Your task to perform on an android device: add a contact Image 0: 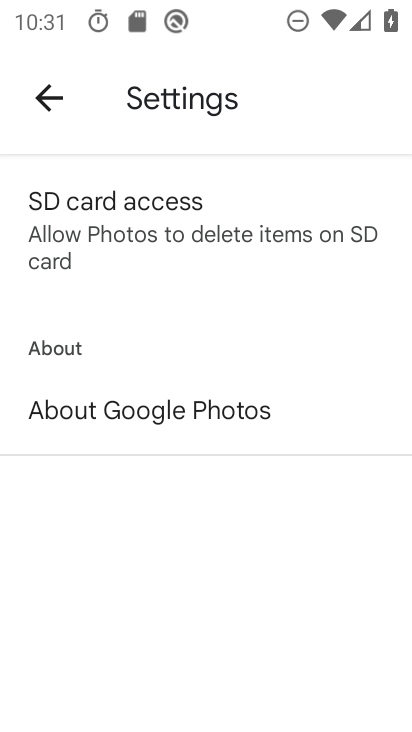
Step 0: press home button
Your task to perform on an android device: add a contact Image 1: 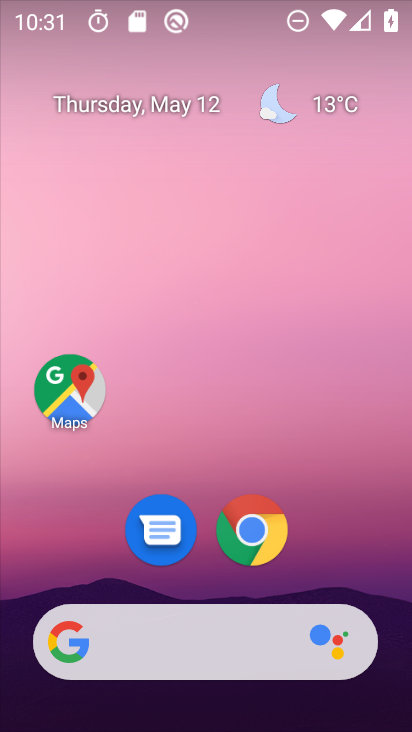
Step 1: drag from (322, 543) to (291, 218)
Your task to perform on an android device: add a contact Image 2: 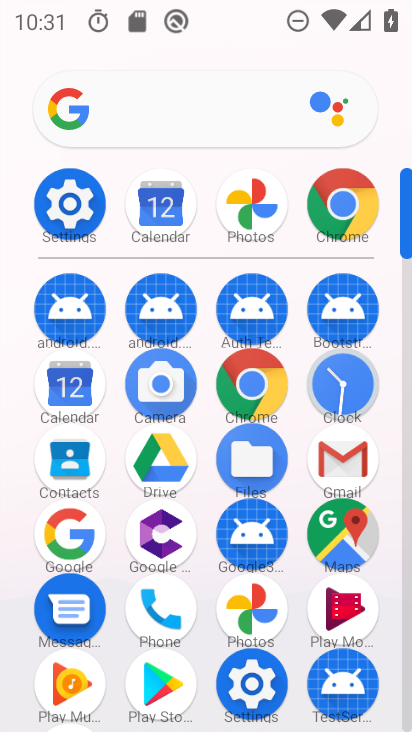
Step 2: click (57, 460)
Your task to perform on an android device: add a contact Image 3: 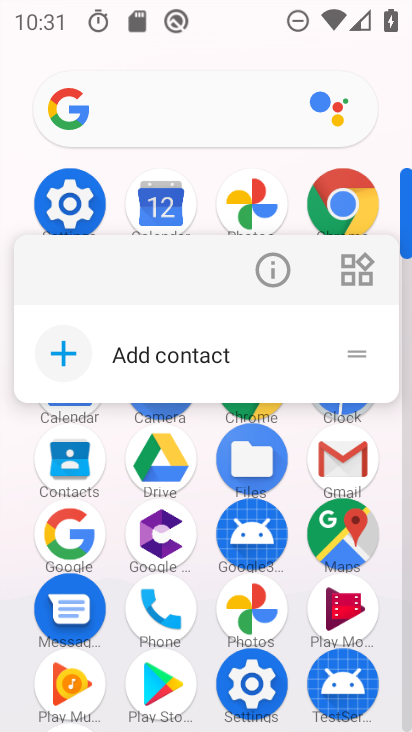
Step 3: click (78, 353)
Your task to perform on an android device: add a contact Image 4: 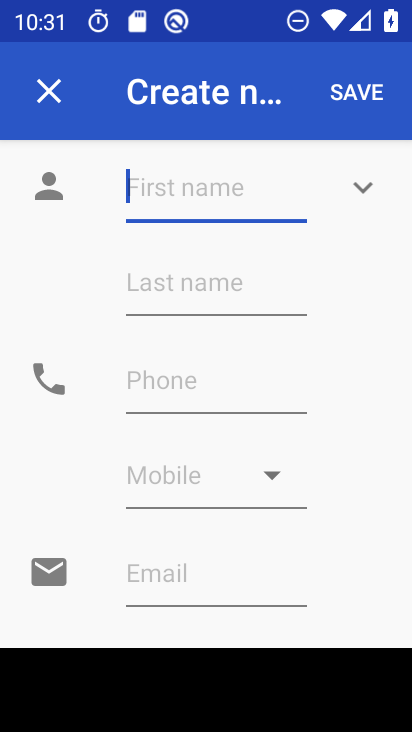
Step 4: type "shsighrth5"
Your task to perform on an android device: add a contact Image 5: 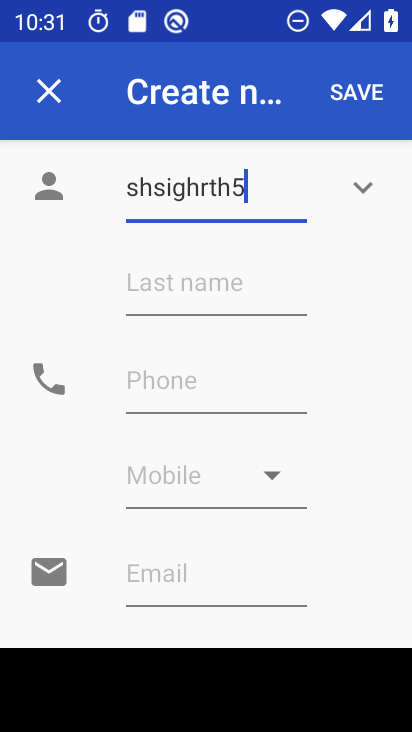
Step 5: click (270, 380)
Your task to perform on an android device: add a contact Image 6: 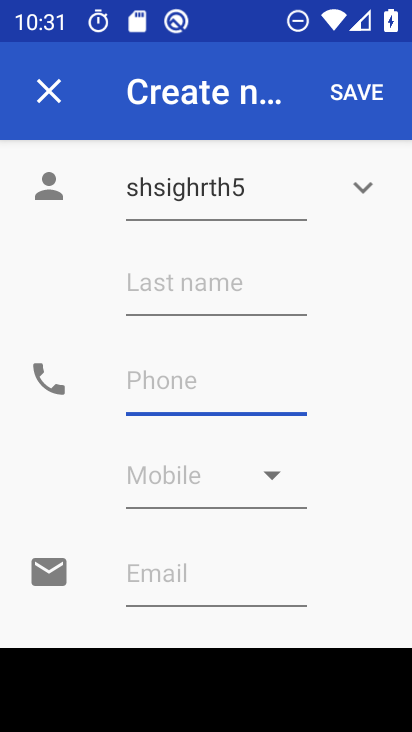
Step 6: type "576879"
Your task to perform on an android device: add a contact Image 7: 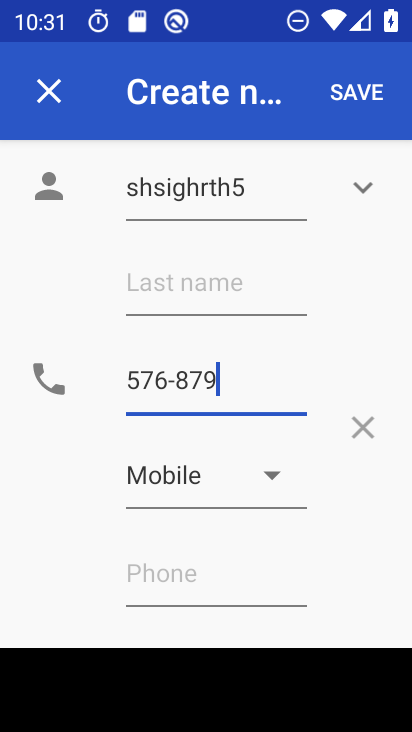
Step 7: click (352, 88)
Your task to perform on an android device: add a contact Image 8: 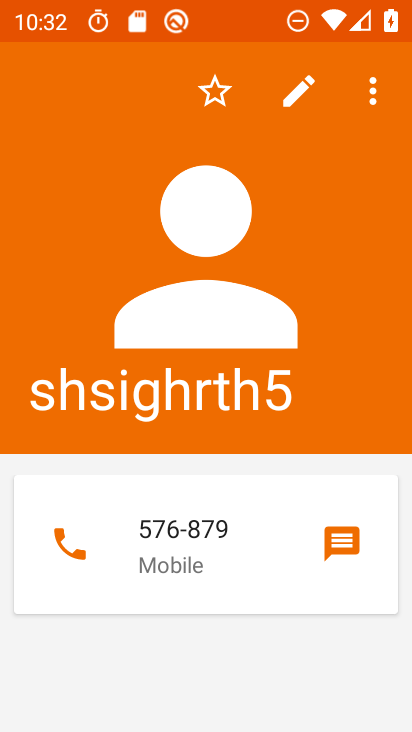
Step 8: task complete